Your task to perform on an android device: open app "Microsoft Authenticator" (install if not already installed) Image 0: 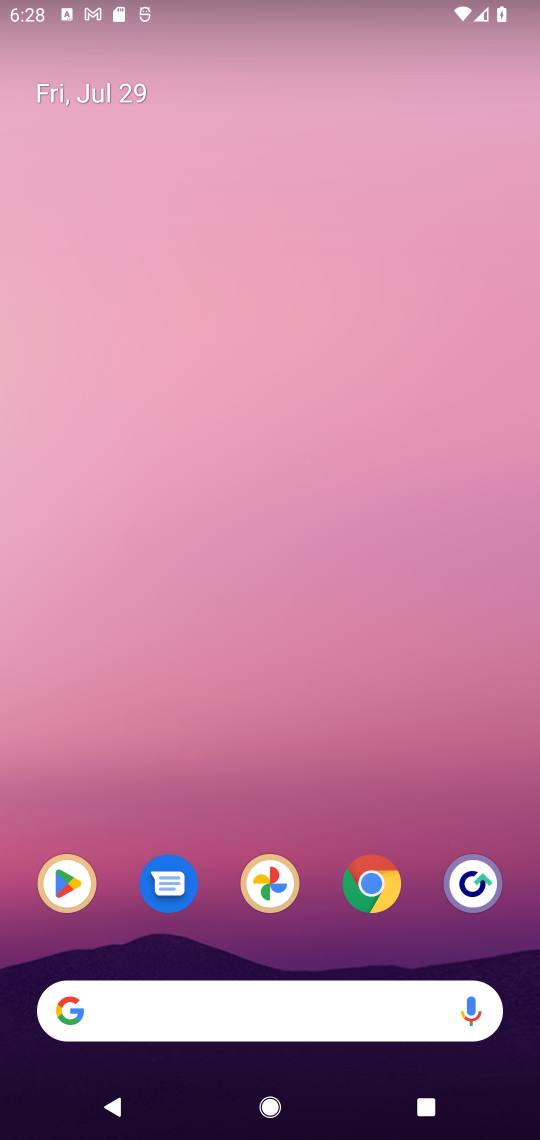
Step 0: click (52, 881)
Your task to perform on an android device: open app "Microsoft Authenticator" (install if not already installed) Image 1: 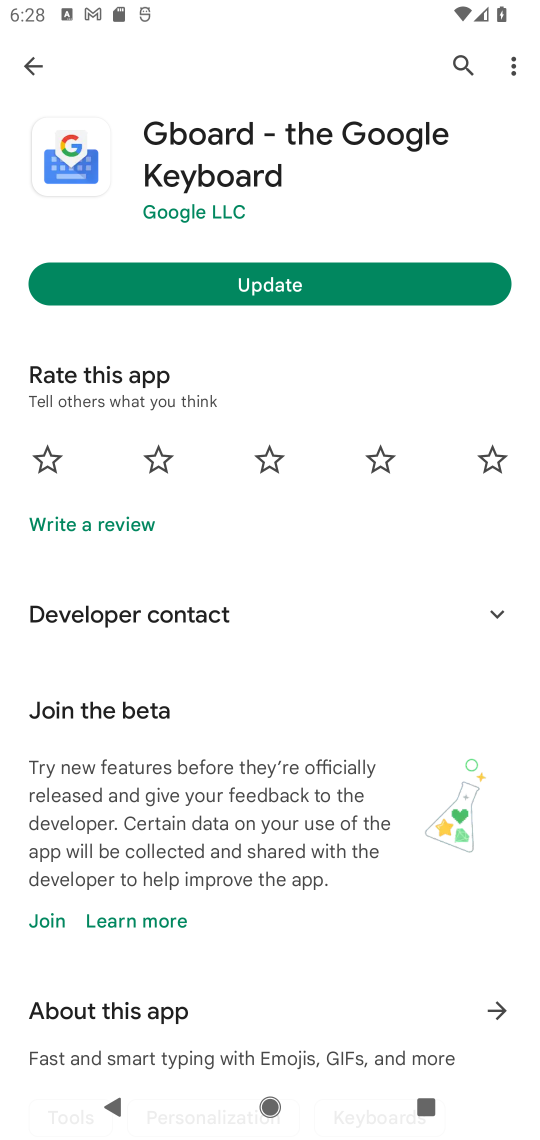
Step 1: click (452, 53)
Your task to perform on an android device: open app "Microsoft Authenticator" (install if not already installed) Image 2: 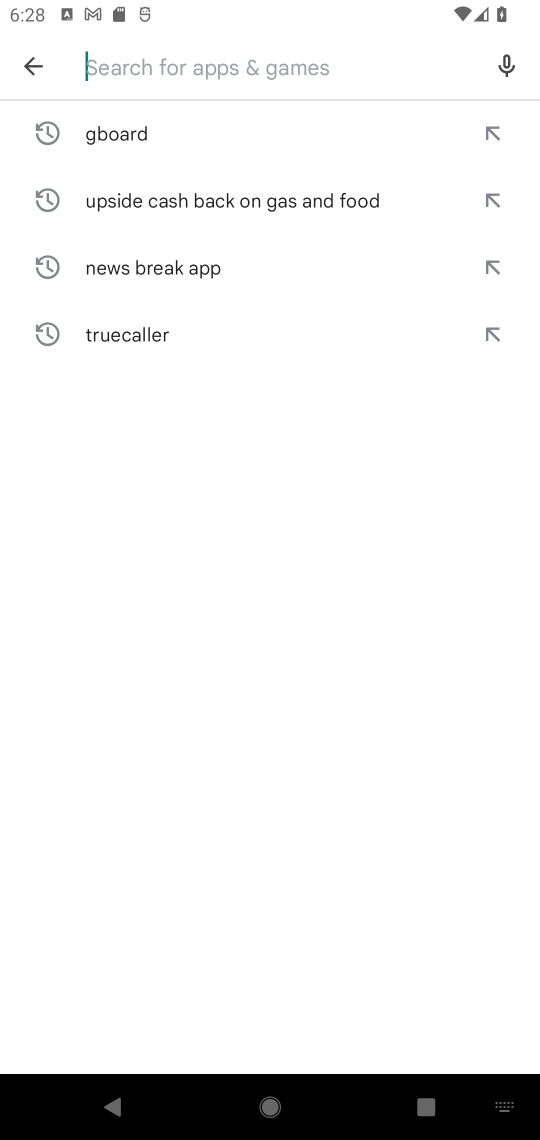
Step 2: click (313, 66)
Your task to perform on an android device: open app "Microsoft Authenticator" (install if not already installed) Image 3: 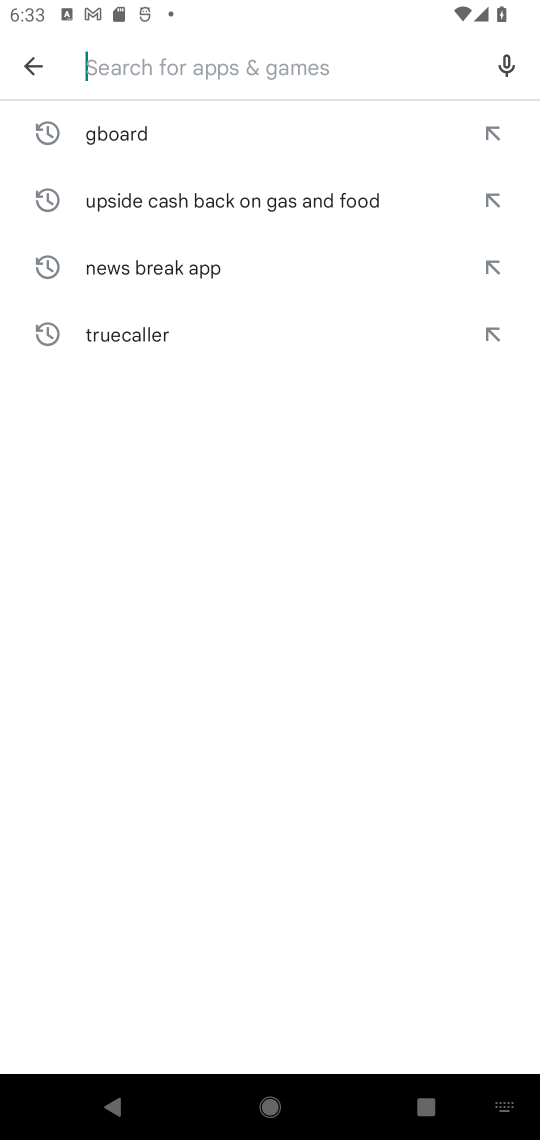
Step 3: type "microsoft auth"
Your task to perform on an android device: open app "Microsoft Authenticator" (install if not already installed) Image 4: 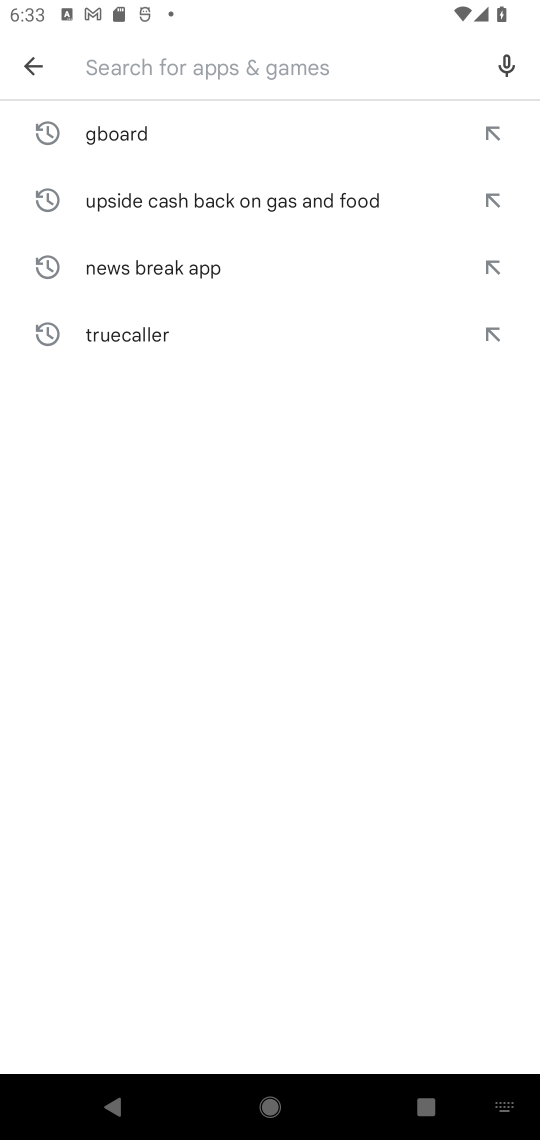
Step 4: click (159, 64)
Your task to perform on an android device: open app "Microsoft Authenticator" (install if not already installed) Image 5: 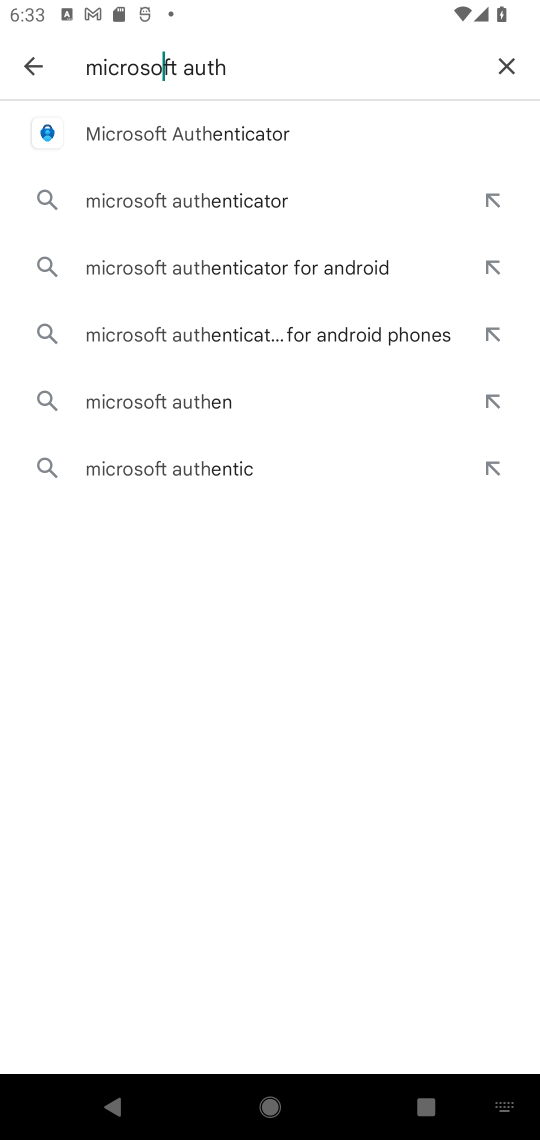
Step 5: type "microsoft "
Your task to perform on an android device: open app "Microsoft Authenticator" (install if not already installed) Image 6: 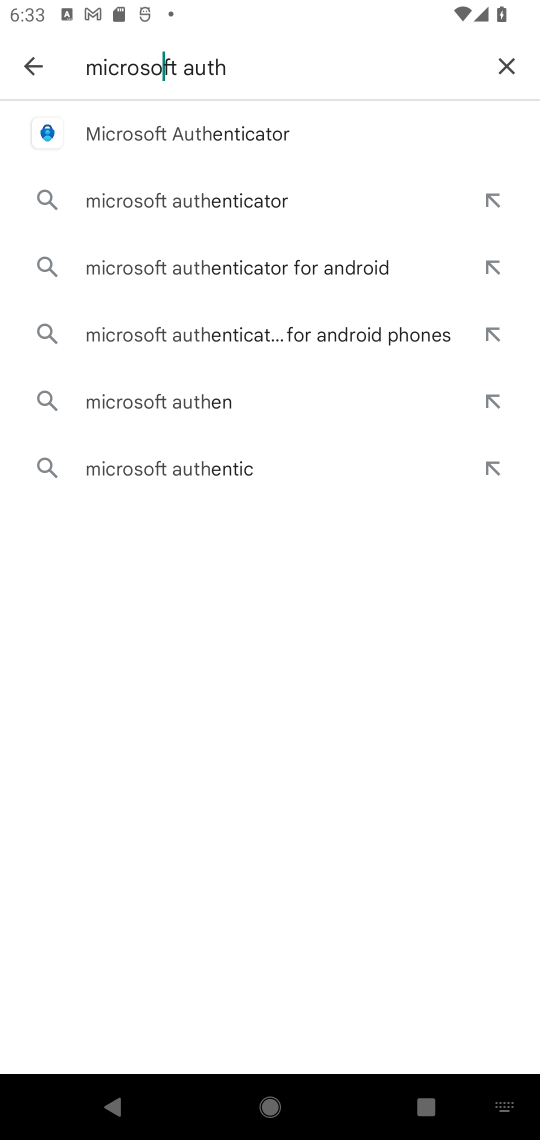
Step 6: click (180, 127)
Your task to perform on an android device: open app "Microsoft Authenticator" (install if not already installed) Image 7: 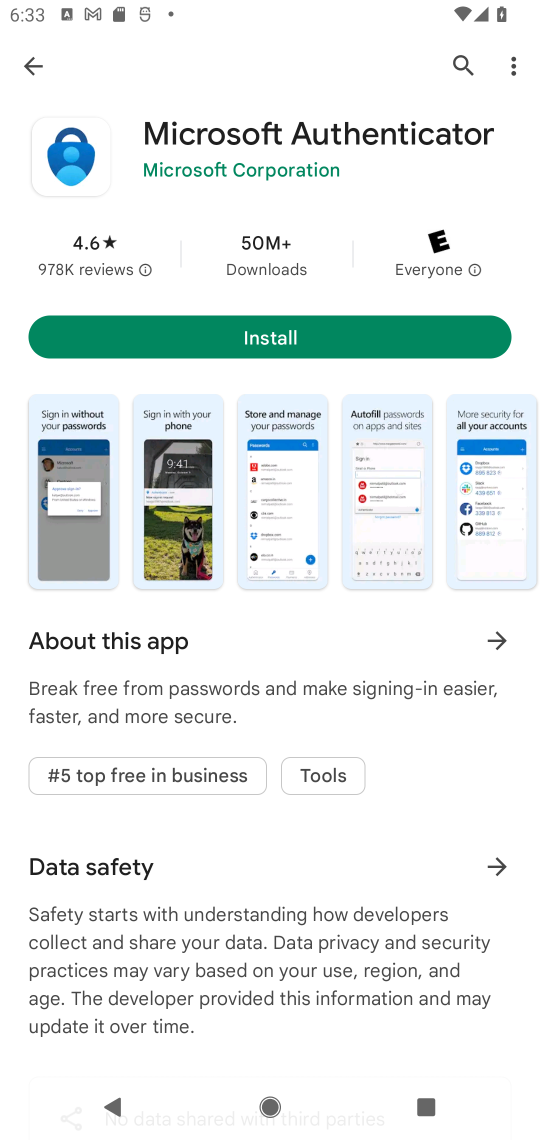
Step 7: click (264, 332)
Your task to perform on an android device: open app "Microsoft Authenticator" (install if not already installed) Image 8: 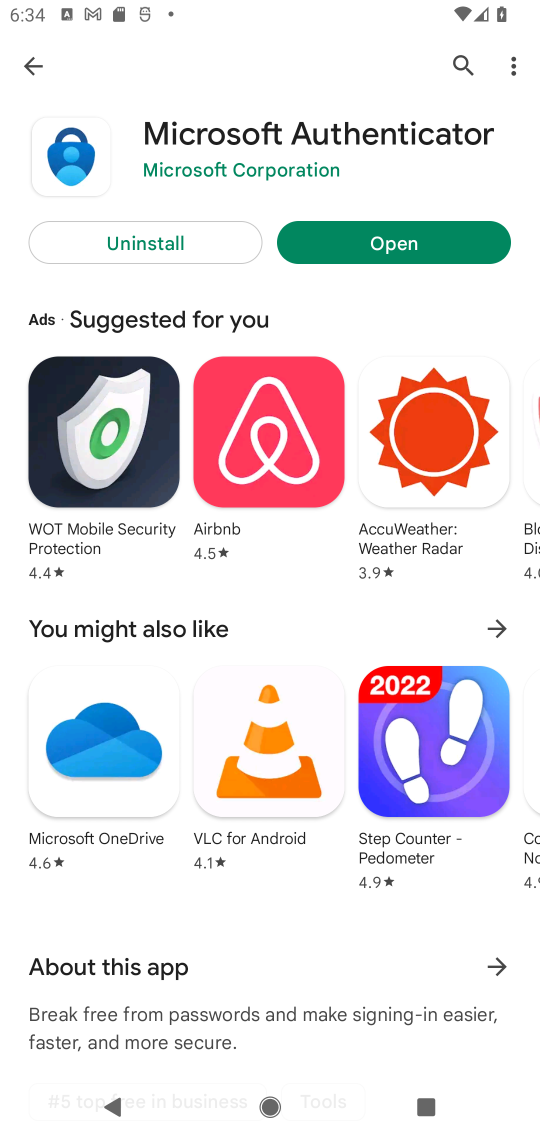
Step 8: click (379, 238)
Your task to perform on an android device: open app "Microsoft Authenticator" (install if not already installed) Image 9: 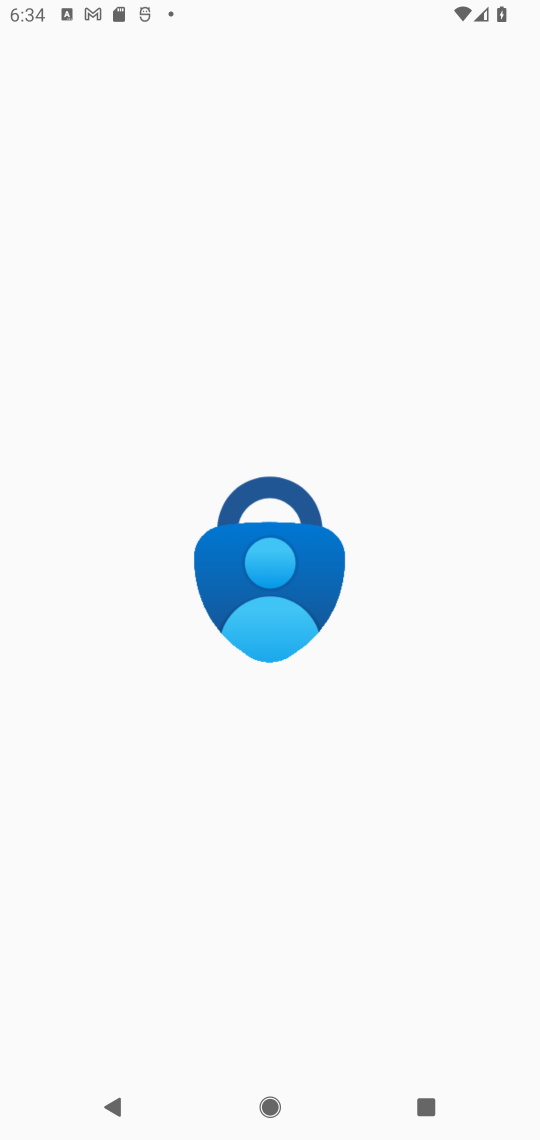
Step 9: task complete